Your task to perform on an android device: Open the stopwatch Image 0: 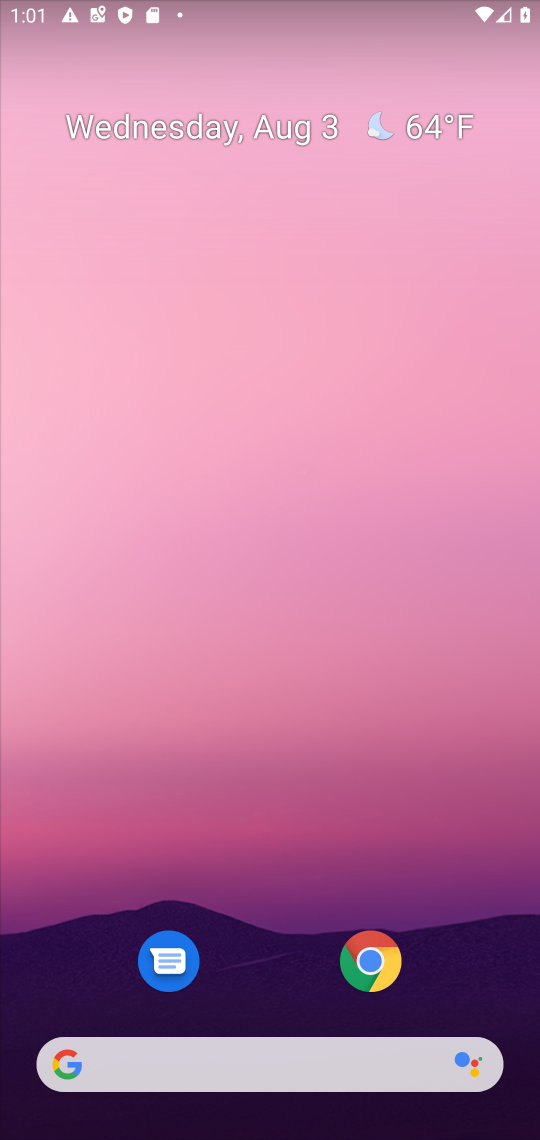
Step 0: press home button
Your task to perform on an android device: Open the stopwatch Image 1: 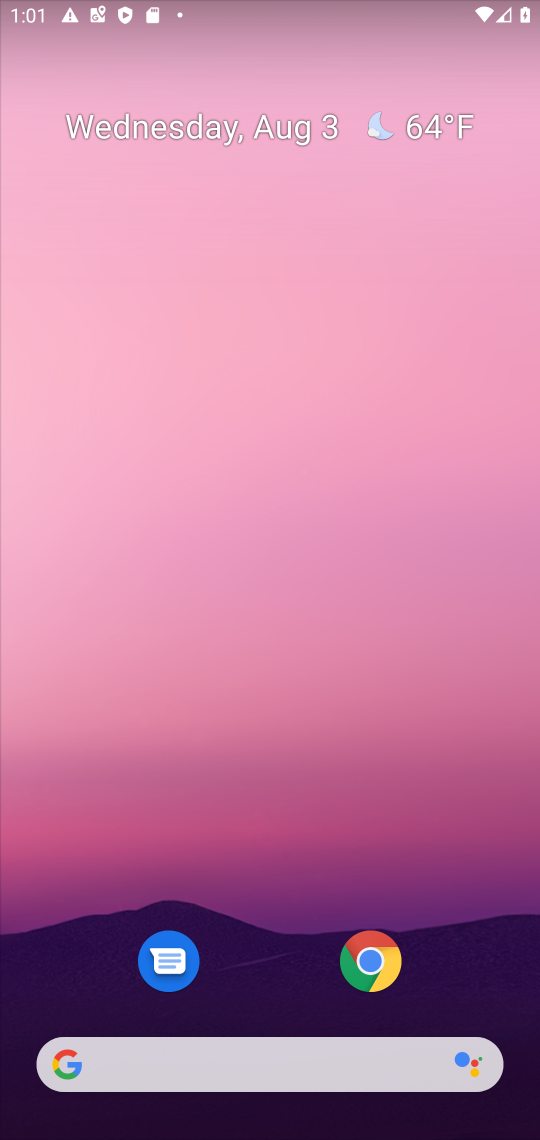
Step 1: drag from (269, 996) to (219, 139)
Your task to perform on an android device: Open the stopwatch Image 2: 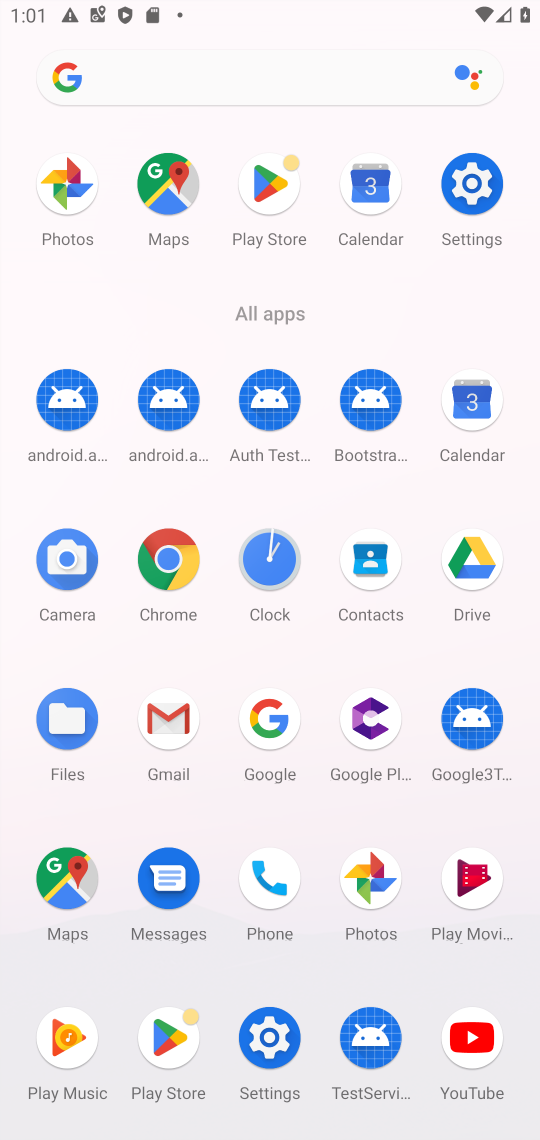
Step 2: click (269, 578)
Your task to perform on an android device: Open the stopwatch Image 3: 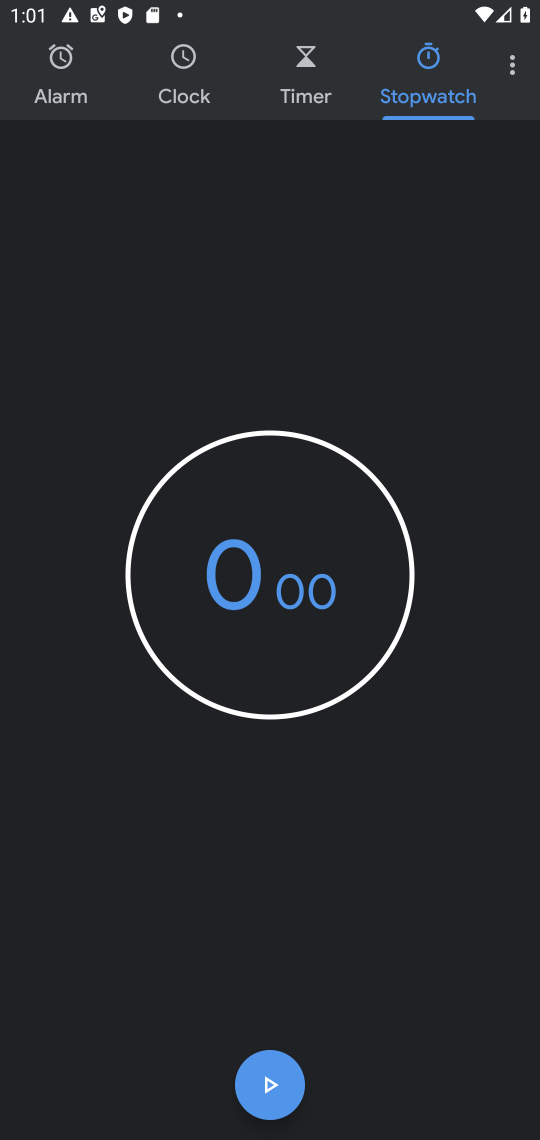
Step 3: task complete